Your task to perform on an android device: Clear the shopping cart on amazon.com. Search for "panasonic triple a" on amazon.com, select the first entry, and add it to the cart. Image 0: 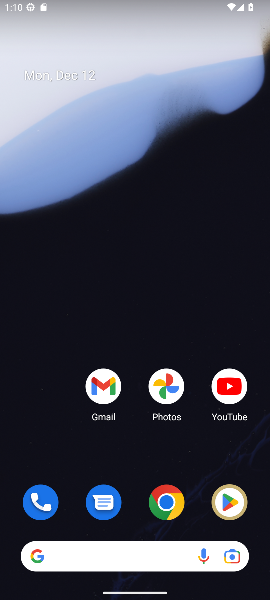
Step 0: click (160, 518)
Your task to perform on an android device: Clear the shopping cart on amazon.com. Search for "panasonic triple a" on amazon.com, select the first entry, and add it to the cart. Image 1: 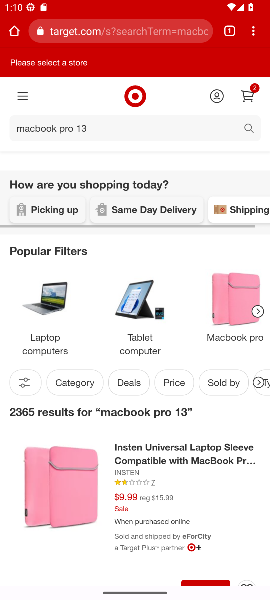
Step 1: click (111, 41)
Your task to perform on an android device: Clear the shopping cart on amazon.com. Search for "panasonic triple a" on amazon.com, select the first entry, and add it to the cart. Image 2: 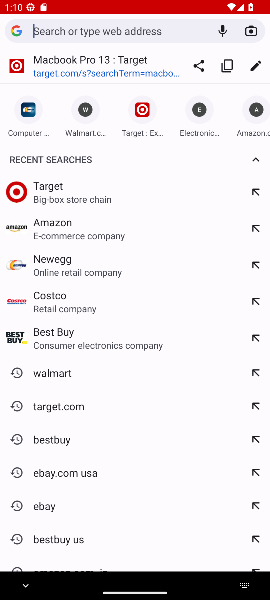
Step 2: click (78, 233)
Your task to perform on an android device: Clear the shopping cart on amazon.com. Search for "panasonic triple a" on amazon.com, select the first entry, and add it to the cart. Image 3: 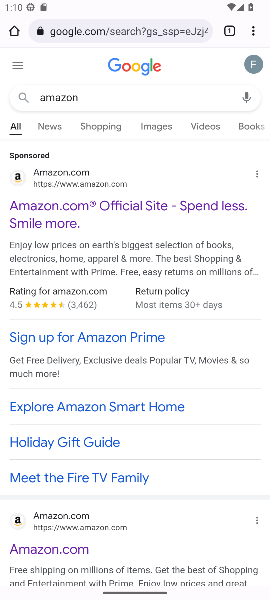
Step 3: click (82, 227)
Your task to perform on an android device: Clear the shopping cart on amazon.com. Search for "panasonic triple a" on amazon.com, select the first entry, and add it to the cart. Image 4: 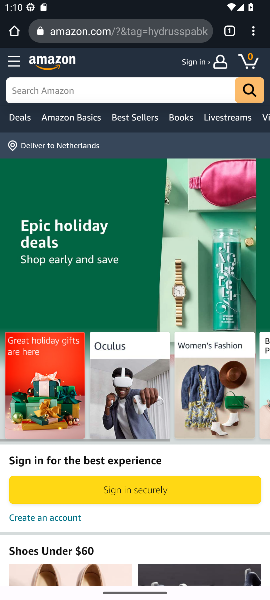
Step 4: click (117, 95)
Your task to perform on an android device: Clear the shopping cart on amazon.com. Search for "panasonic triple a" on amazon.com, select the first entry, and add it to the cart. Image 5: 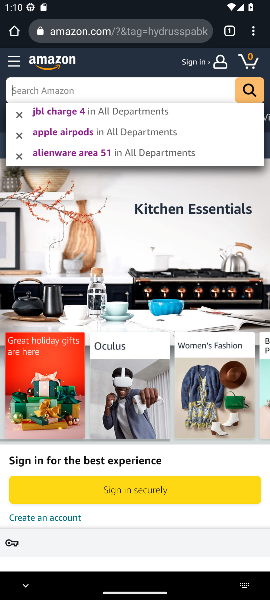
Step 5: type "panasonic triple a"
Your task to perform on an android device: Clear the shopping cart on amazon.com. Search for "panasonic triple a" on amazon.com, select the first entry, and add it to the cart. Image 6: 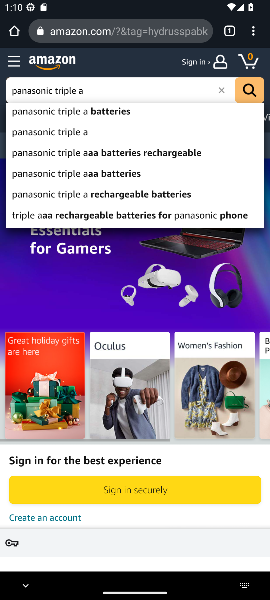
Step 6: click (120, 108)
Your task to perform on an android device: Clear the shopping cart on amazon.com. Search for "panasonic triple a" on amazon.com, select the first entry, and add it to the cart. Image 7: 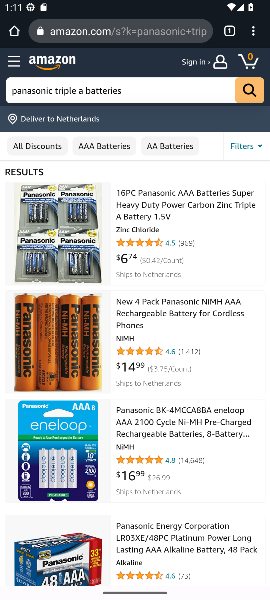
Step 7: click (150, 219)
Your task to perform on an android device: Clear the shopping cart on amazon.com. Search for "panasonic triple a" on amazon.com, select the first entry, and add it to the cart. Image 8: 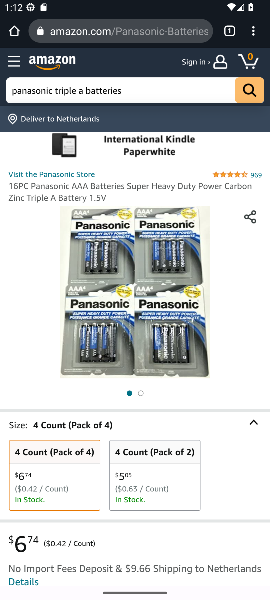
Step 8: drag from (157, 526) to (125, 368)
Your task to perform on an android device: Clear the shopping cart on amazon.com. Search for "panasonic triple a" on amazon.com, select the first entry, and add it to the cart. Image 9: 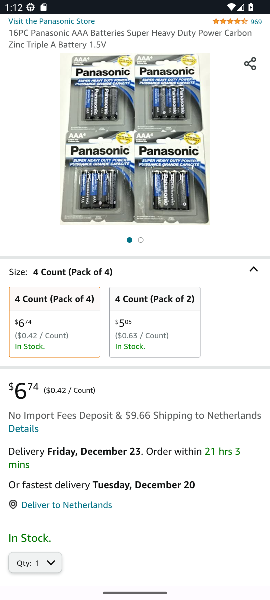
Step 9: drag from (159, 545) to (115, 301)
Your task to perform on an android device: Clear the shopping cart on amazon.com. Search for "panasonic triple a" on amazon.com, select the first entry, and add it to the cart. Image 10: 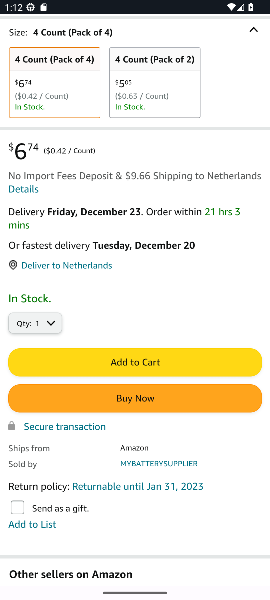
Step 10: click (176, 350)
Your task to perform on an android device: Clear the shopping cart on amazon.com. Search for "panasonic triple a" on amazon.com, select the first entry, and add it to the cart. Image 11: 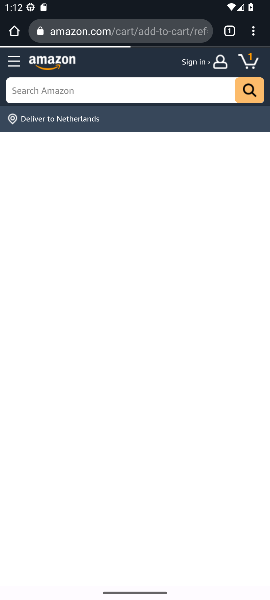
Step 11: task complete